Your task to perform on an android device: see sites visited before in the chrome app Image 0: 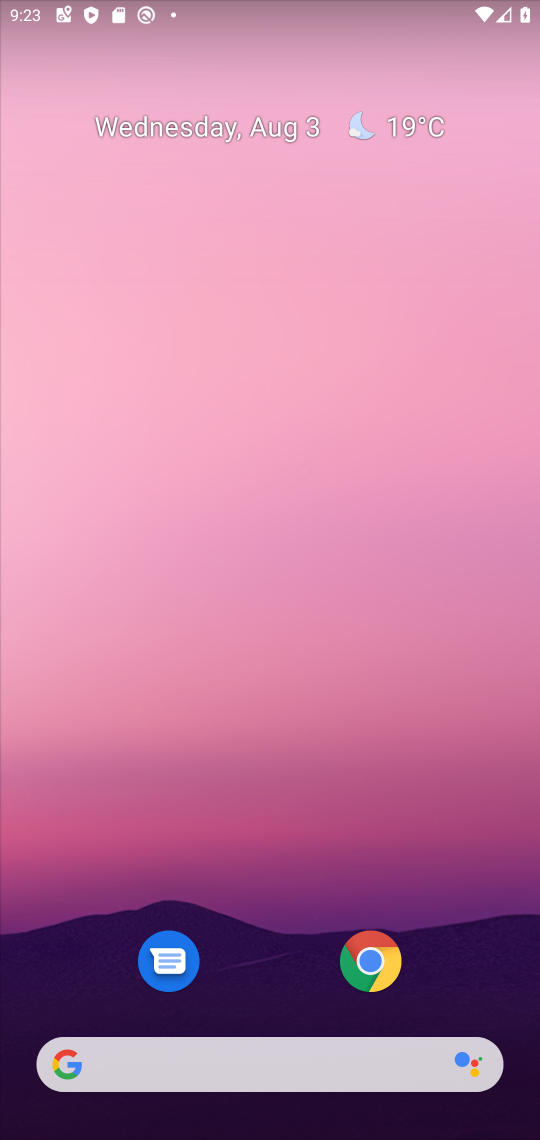
Step 0: drag from (244, 364) to (234, 6)
Your task to perform on an android device: see sites visited before in the chrome app Image 1: 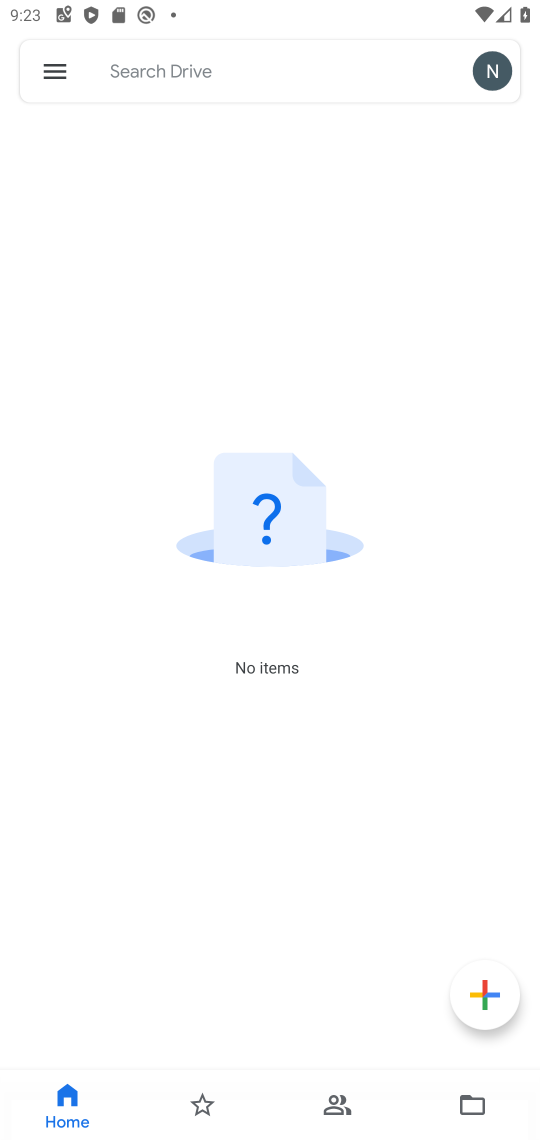
Step 1: press back button
Your task to perform on an android device: see sites visited before in the chrome app Image 2: 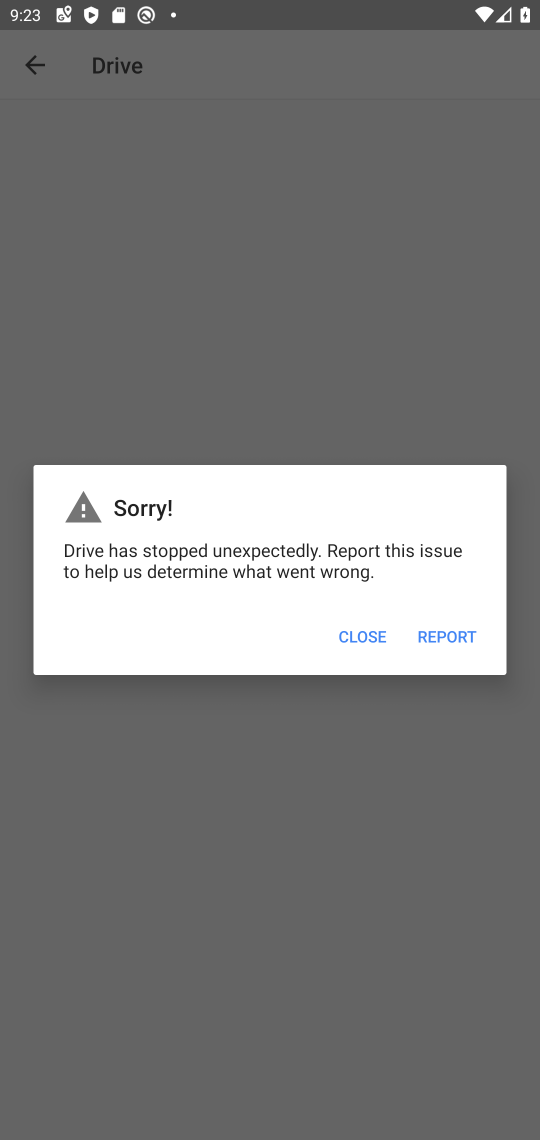
Step 2: press home button
Your task to perform on an android device: see sites visited before in the chrome app Image 3: 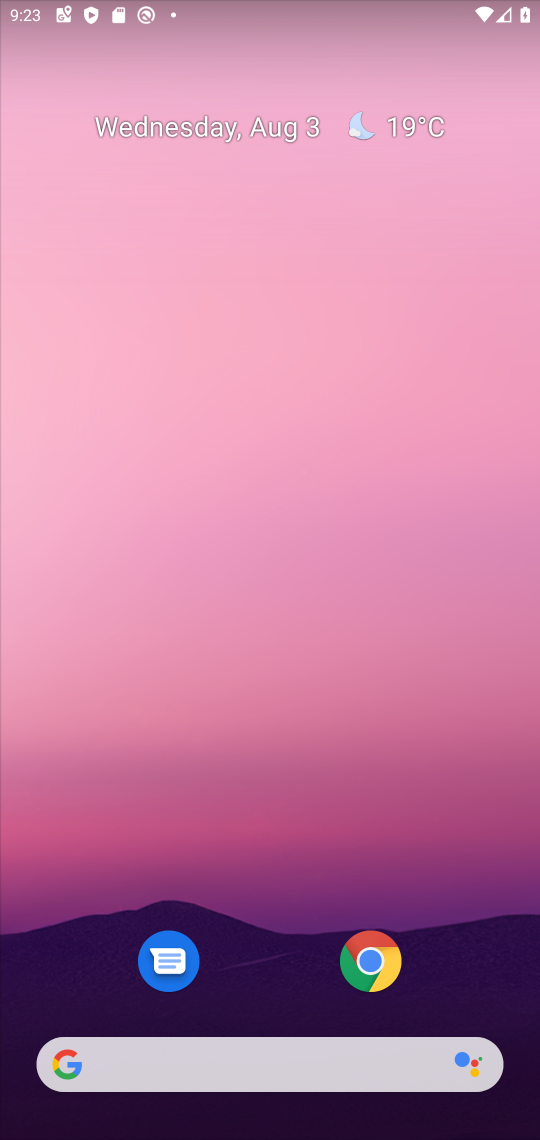
Step 3: click (339, 977)
Your task to perform on an android device: see sites visited before in the chrome app Image 4: 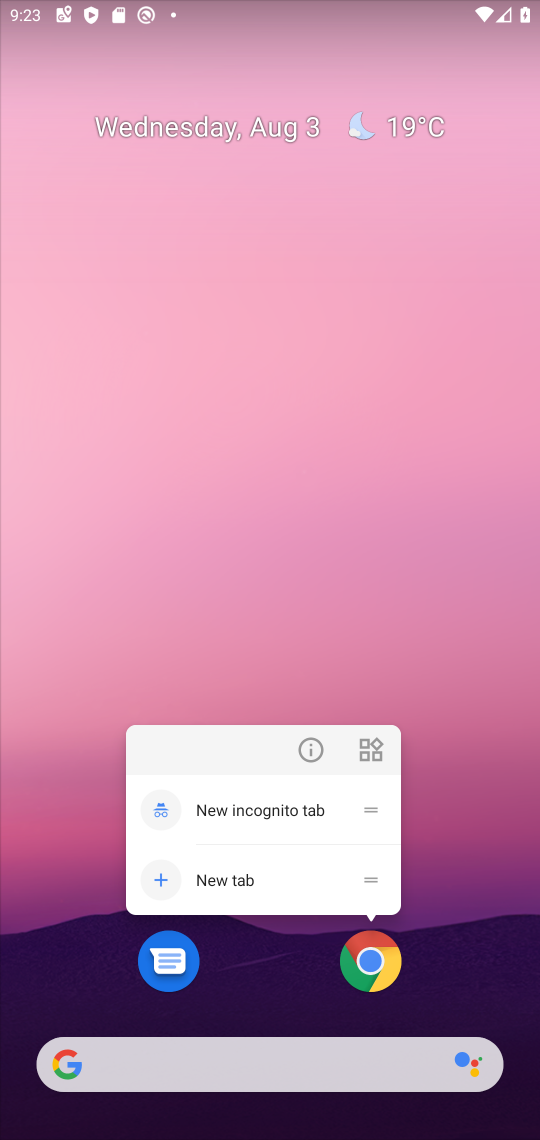
Step 4: click (361, 953)
Your task to perform on an android device: see sites visited before in the chrome app Image 5: 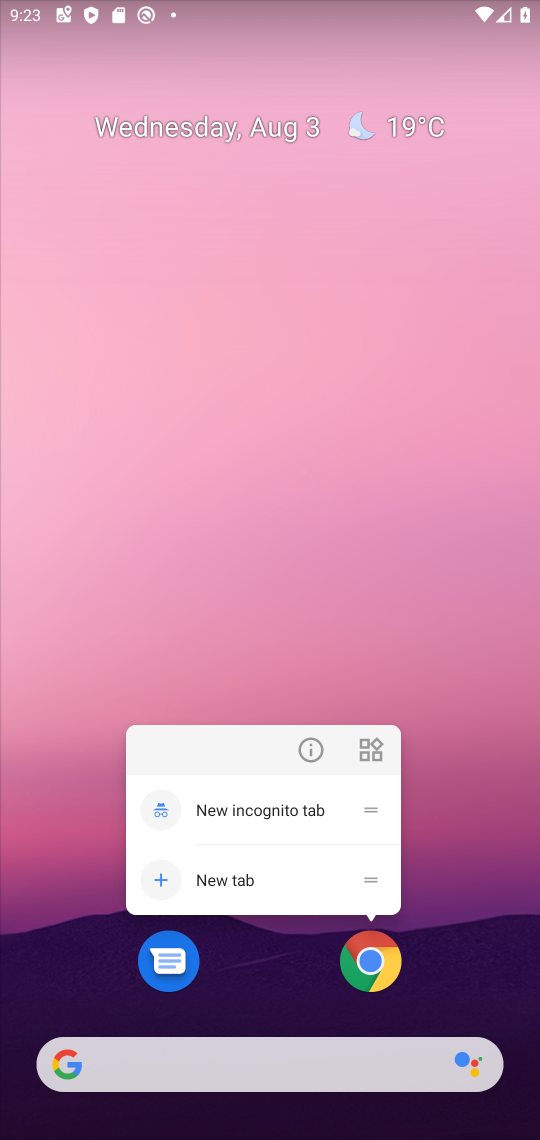
Step 5: click (361, 953)
Your task to perform on an android device: see sites visited before in the chrome app Image 6: 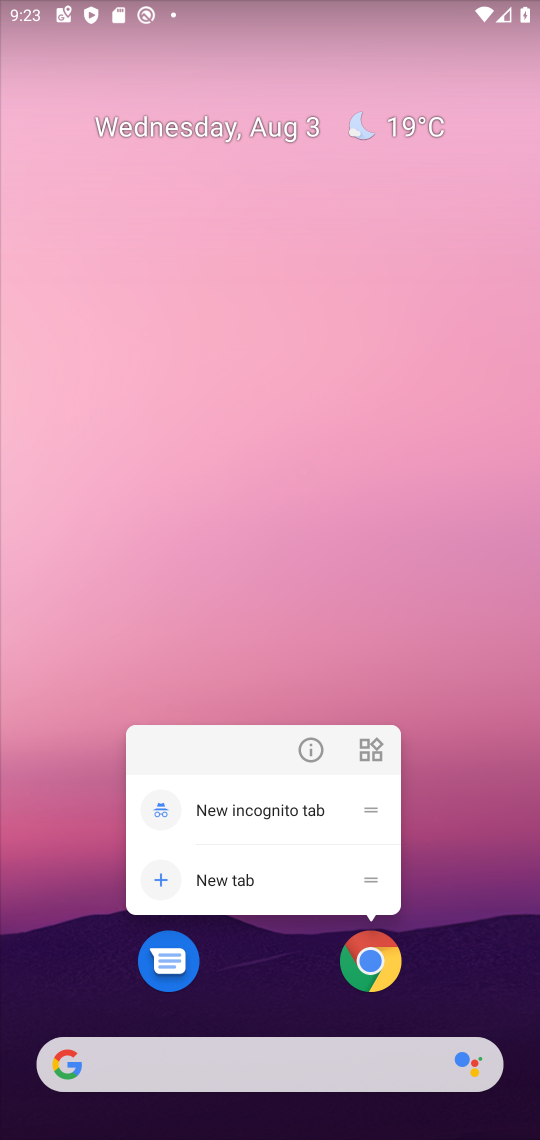
Step 6: click (361, 953)
Your task to perform on an android device: see sites visited before in the chrome app Image 7: 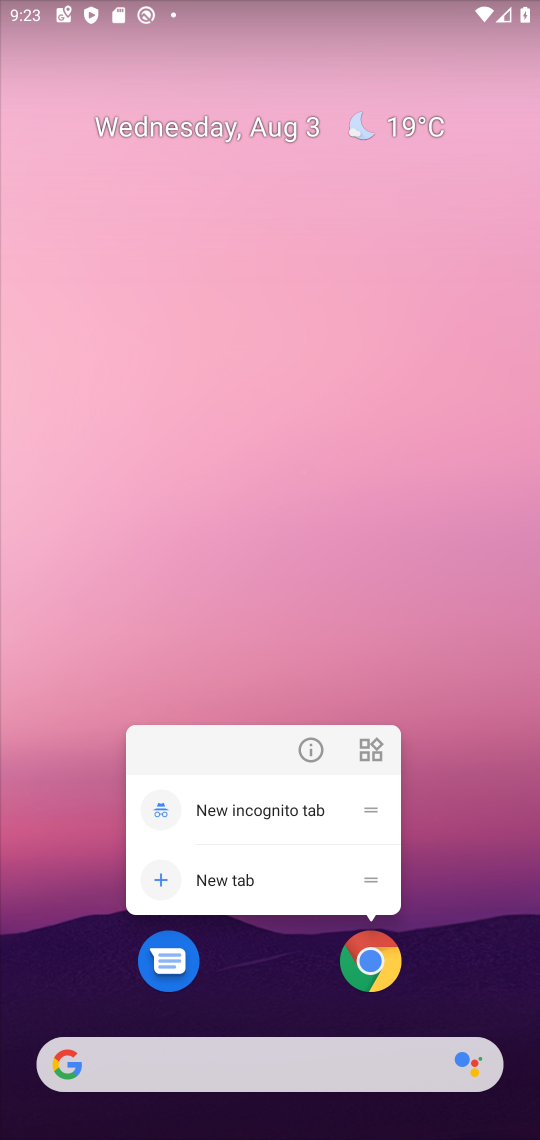
Step 7: click (368, 976)
Your task to perform on an android device: see sites visited before in the chrome app Image 8: 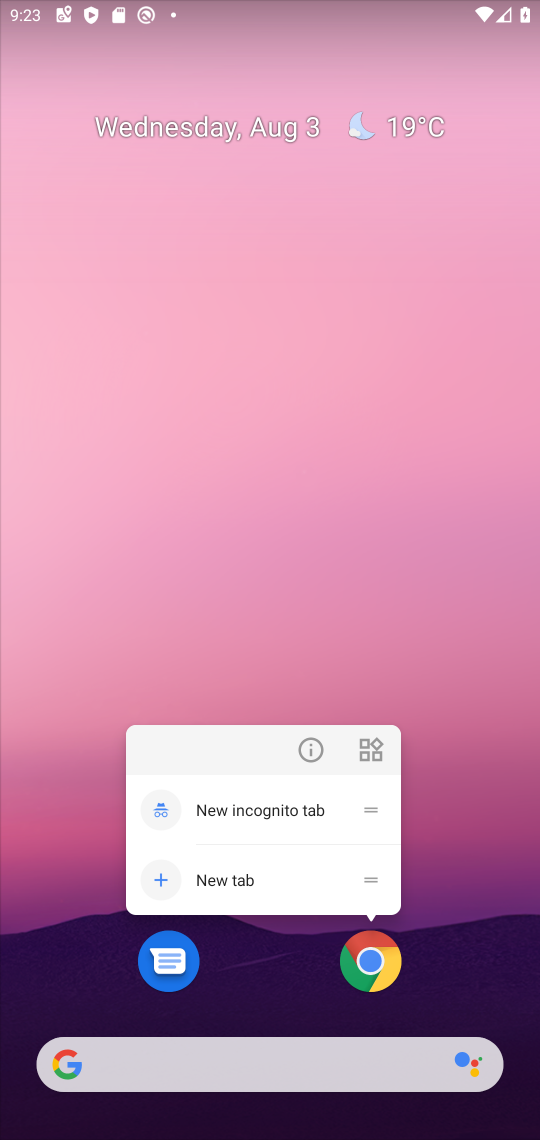
Step 8: click (368, 976)
Your task to perform on an android device: see sites visited before in the chrome app Image 9: 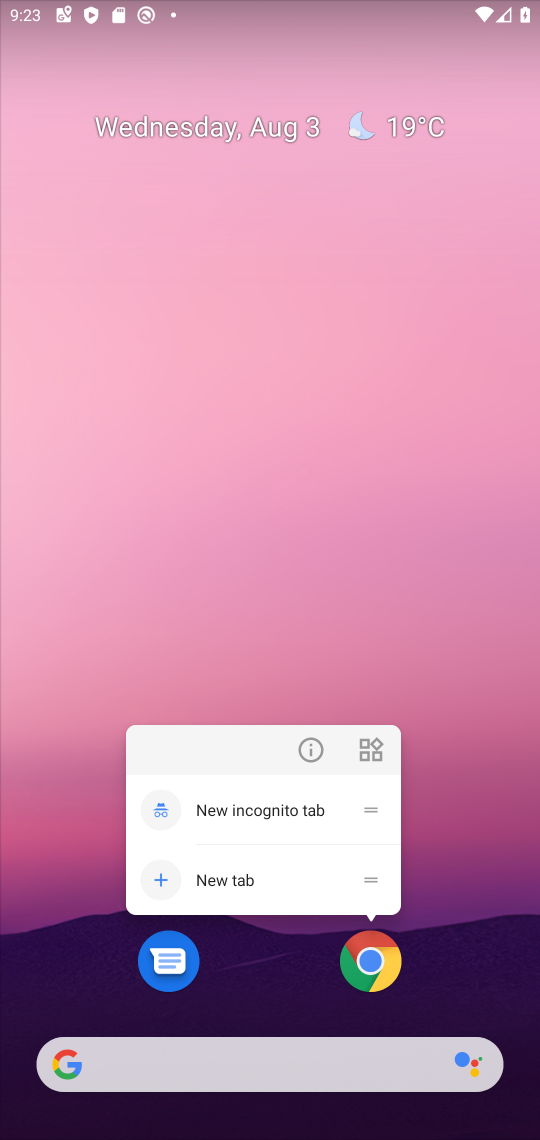
Step 9: click (402, 963)
Your task to perform on an android device: see sites visited before in the chrome app Image 10: 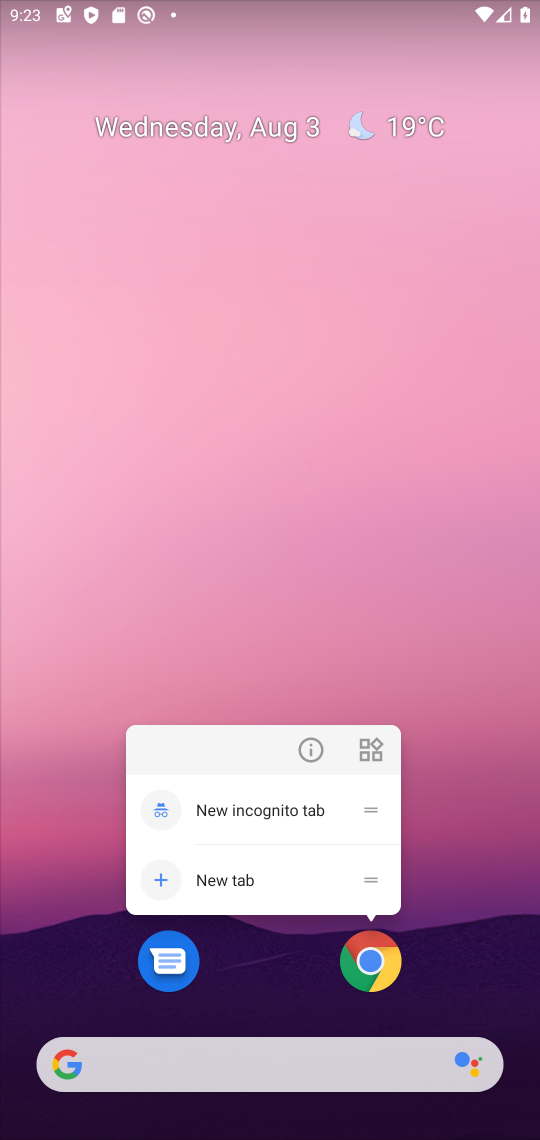
Step 10: click (394, 968)
Your task to perform on an android device: see sites visited before in the chrome app Image 11: 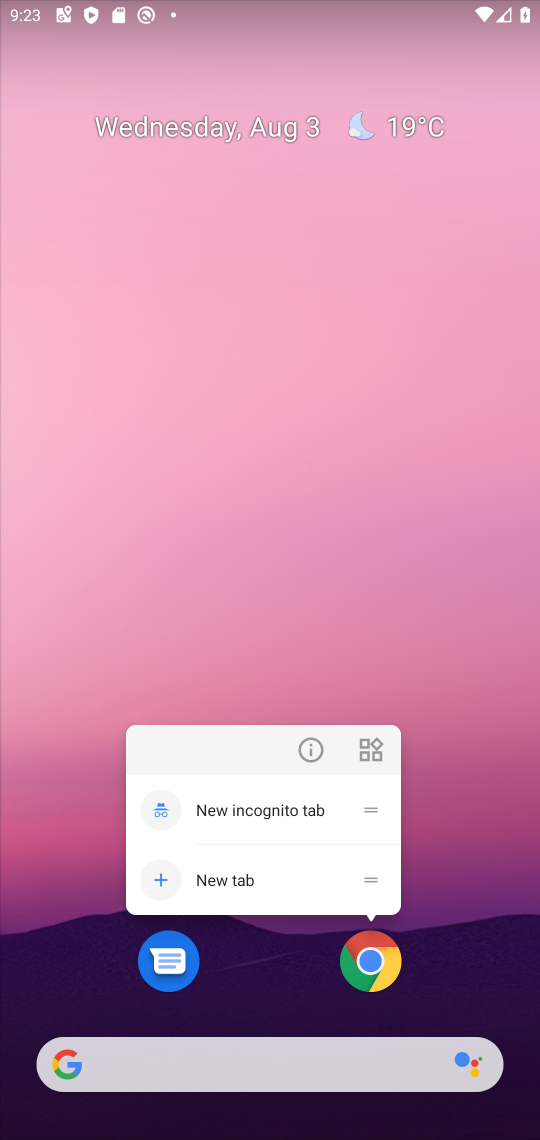
Step 11: click (377, 973)
Your task to perform on an android device: see sites visited before in the chrome app Image 12: 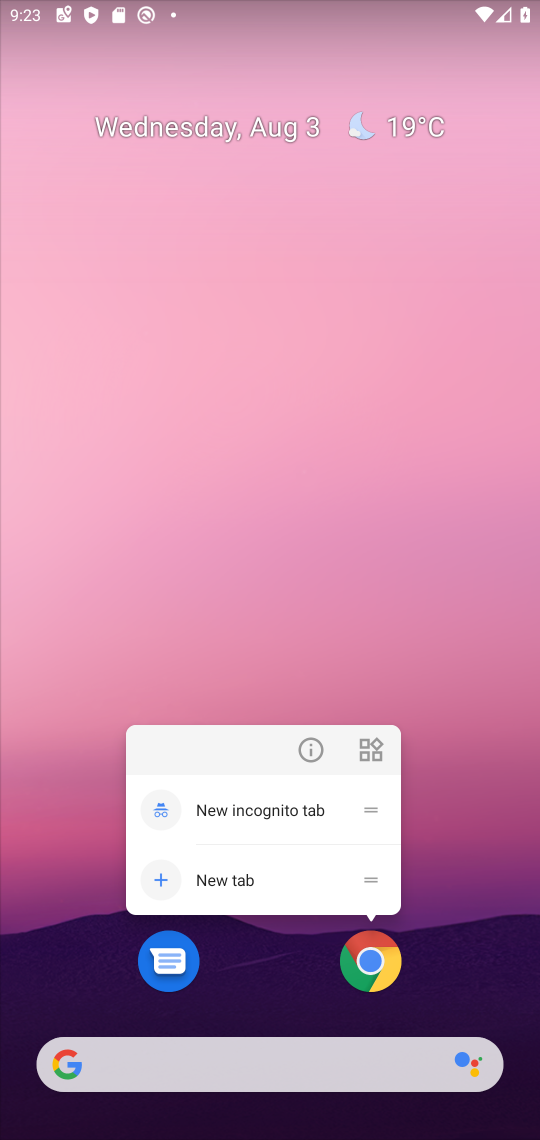
Step 12: click (377, 973)
Your task to perform on an android device: see sites visited before in the chrome app Image 13: 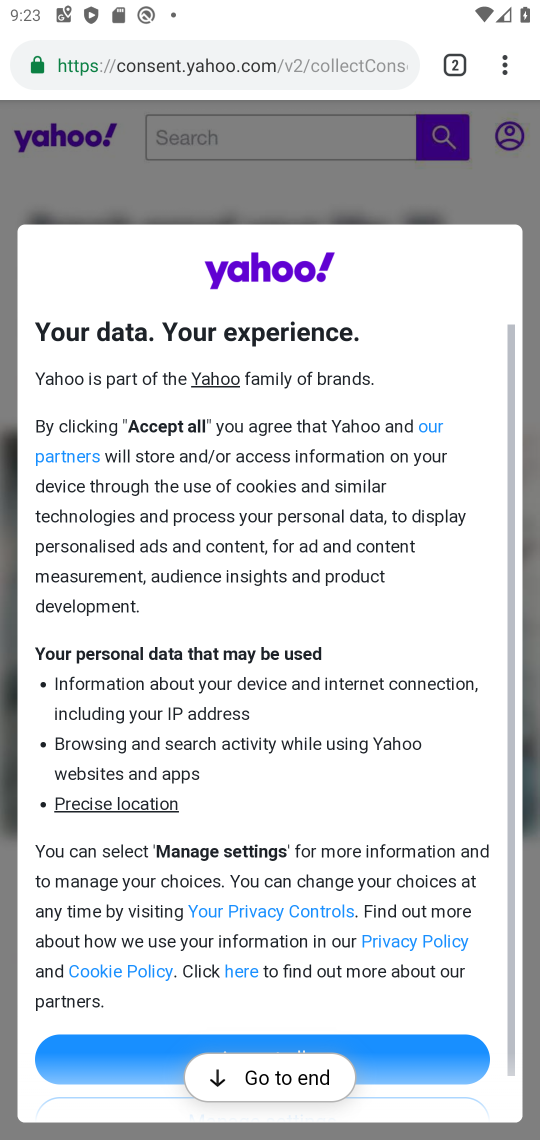
Step 13: click (465, 61)
Your task to perform on an android device: see sites visited before in the chrome app Image 14: 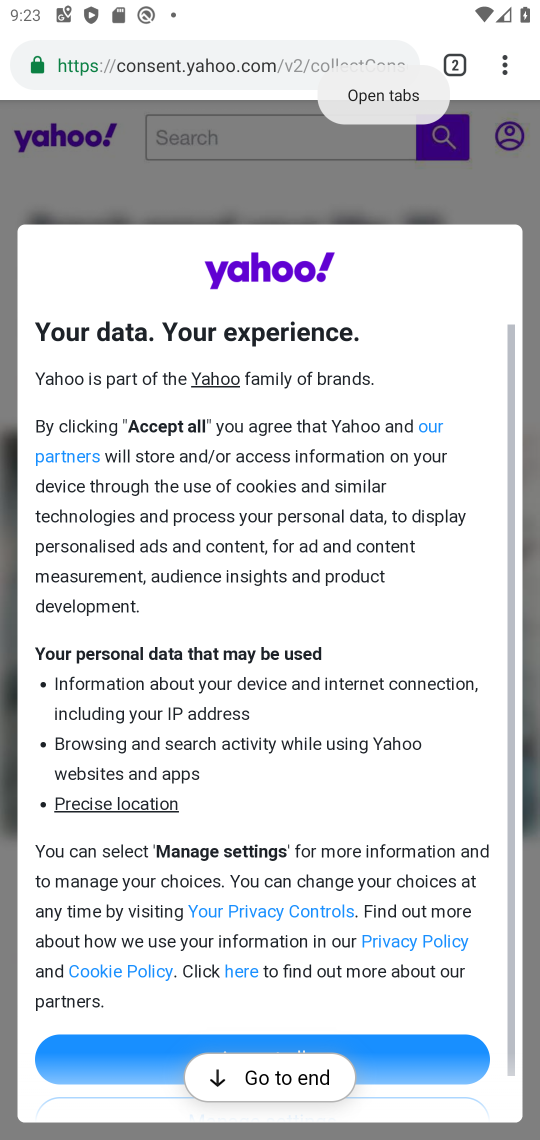
Step 14: click (451, 65)
Your task to perform on an android device: see sites visited before in the chrome app Image 15: 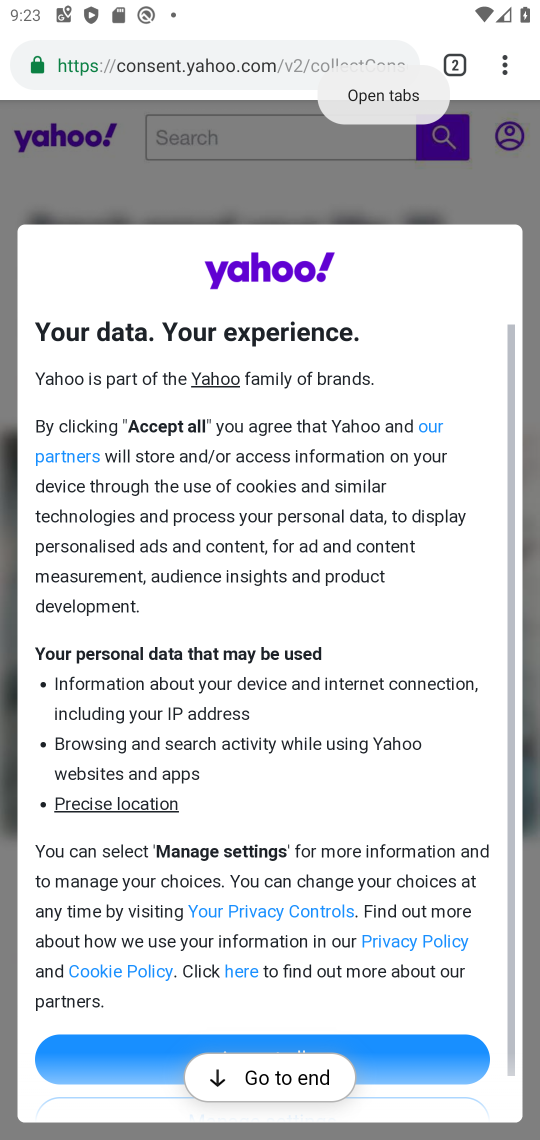
Step 15: click (451, 65)
Your task to perform on an android device: see sites visited before in the chrome app Image 16: 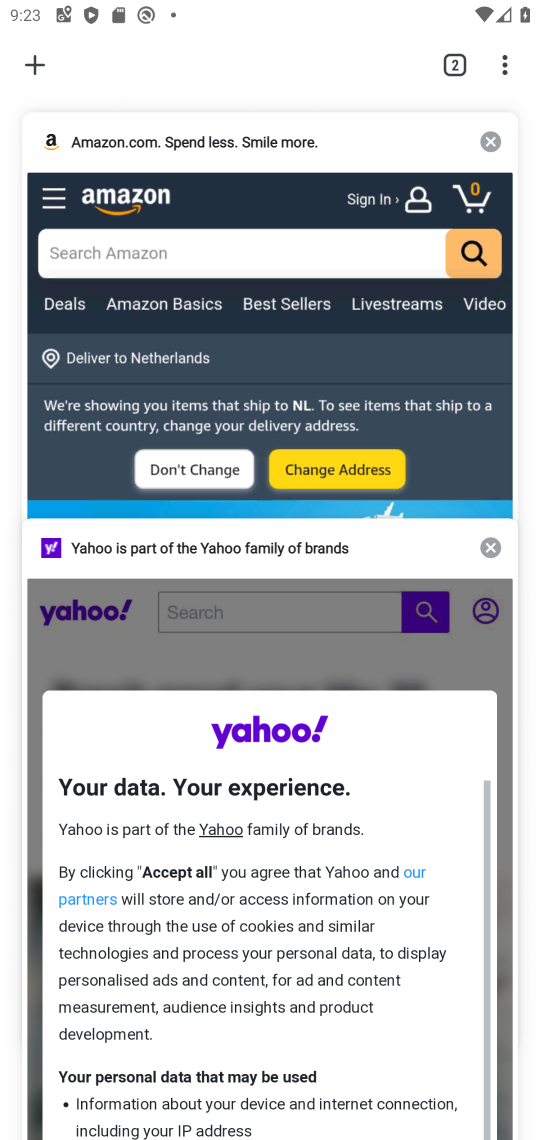
Step 16: task complete